Your task to perform on an android device: set an alarm Image 0: 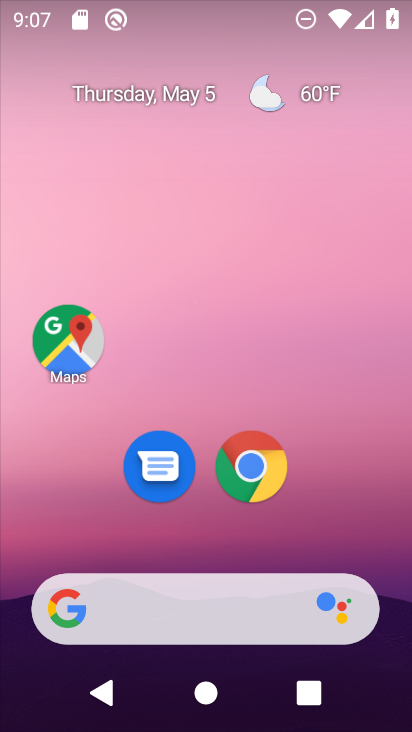
Step 0: click (399, 504)
Your task to perform on an android device: set an alarm Image 1: 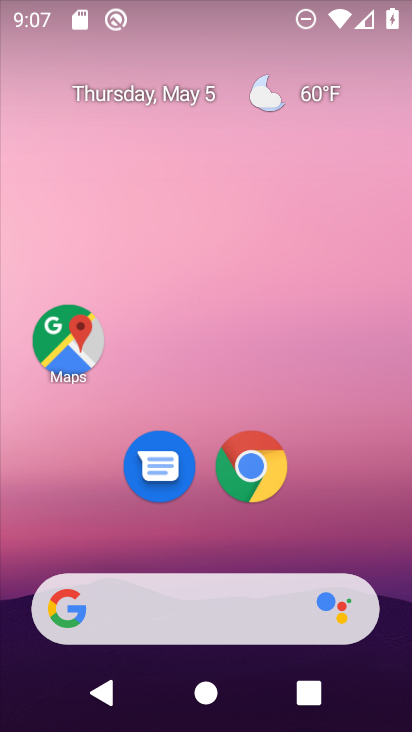
Step 1: drag from (175, 399) to (20, 43)
Your task to perform on an android device: set an alarm Image 2: 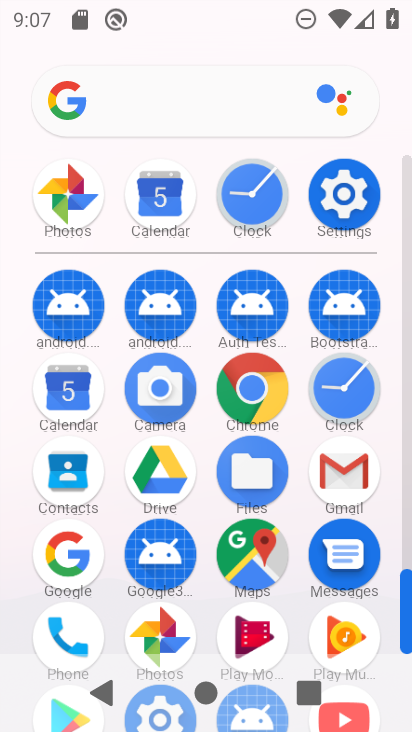
Step 2: click (248, 194)
Your task to perform on an android device: set an alarm Image 3: 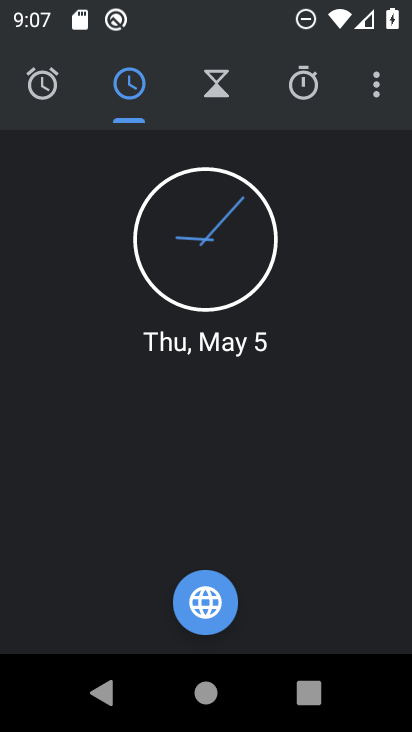
Step 3: click (39, 79)
Your task to perform on an android device: set an alarm Image 4: 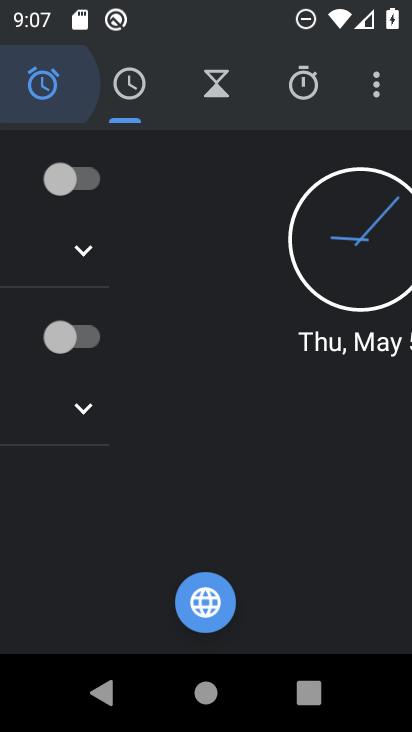
Step 4: click (39, 79)
Your task to perform on an android device: set an alarm Image 5: 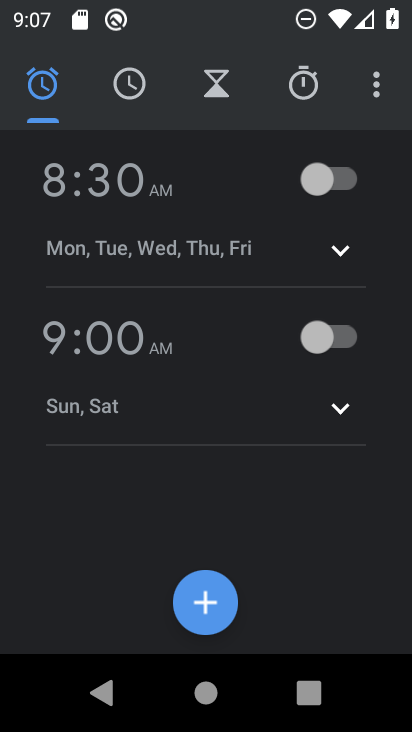
Step 5: click (89, 453)
Your task to perform on an android device: set an alarm Image 6: 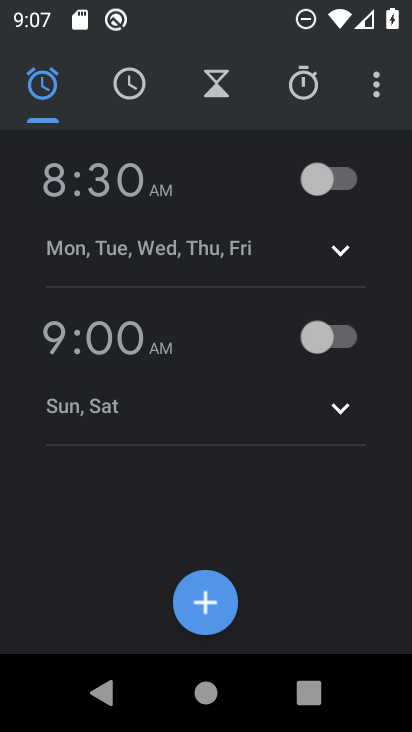
Step 6: click (89, 453)
Your task to perform on an android device: set an alarm Image 7: 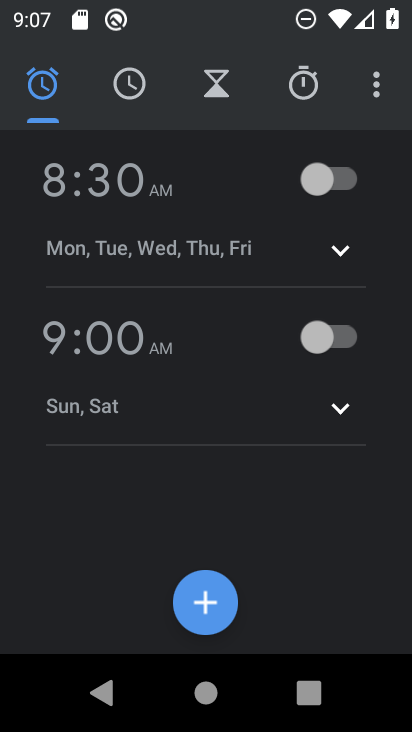
Step 7: click (195, 605)
Your task to perform on an android device: set an alarm Image 8: 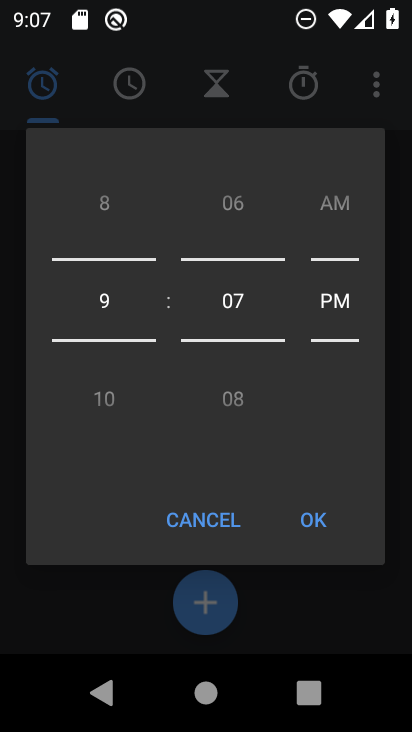
Step 8: click (113, 378)
Your task to perform on an android device: set an alarm Image 9: 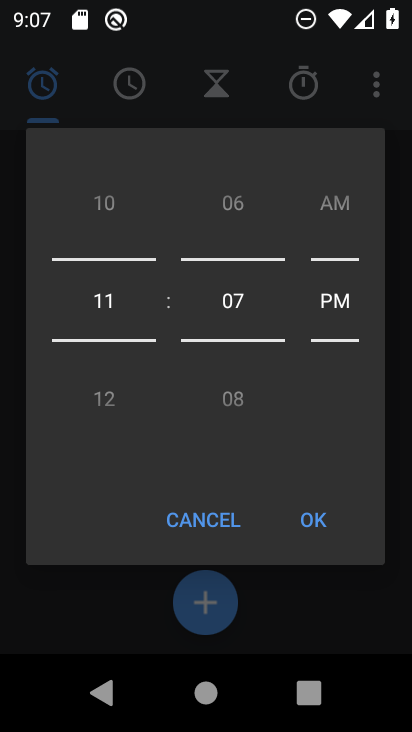
Step 9: click (305, 536)
Your task to perform on an android device: set an alarm Image 10: 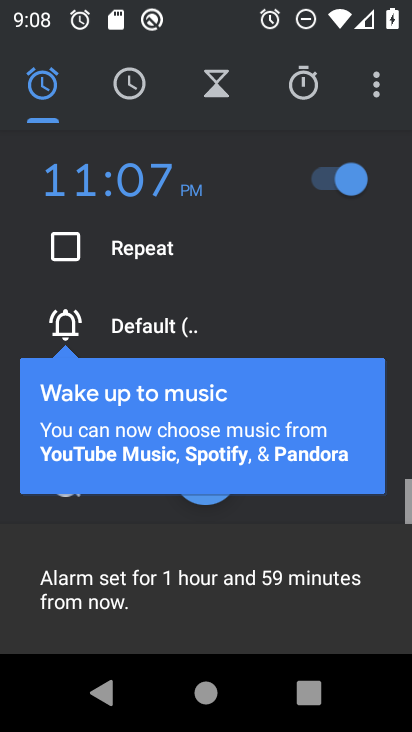
Step 10: task complete